Your task to perform on an android device: create a new album in the google photos Image 0: 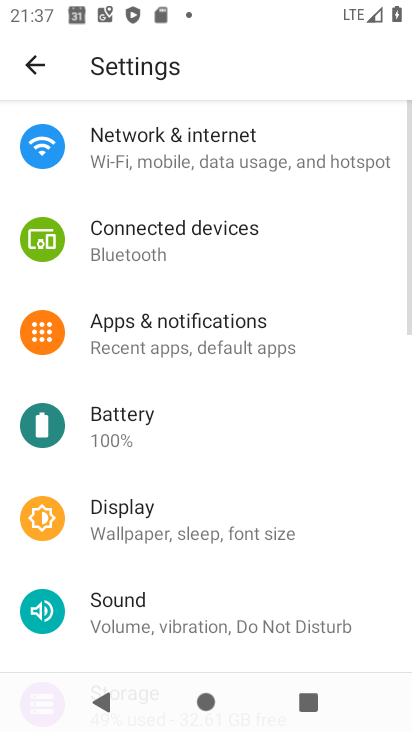
Step 0: press home button
Your task to perform on an android device: create a new album in the google photos Image 1: 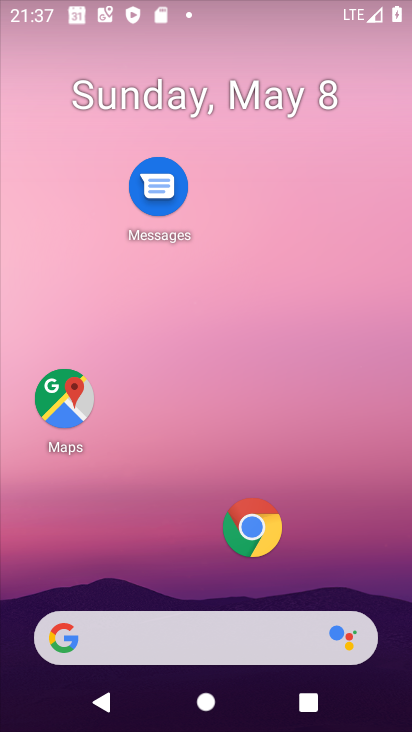
Step 1: drag from (172, 577) to (188, 53)
Your task to perform on an android device: create a new album in the google photos Image 2: 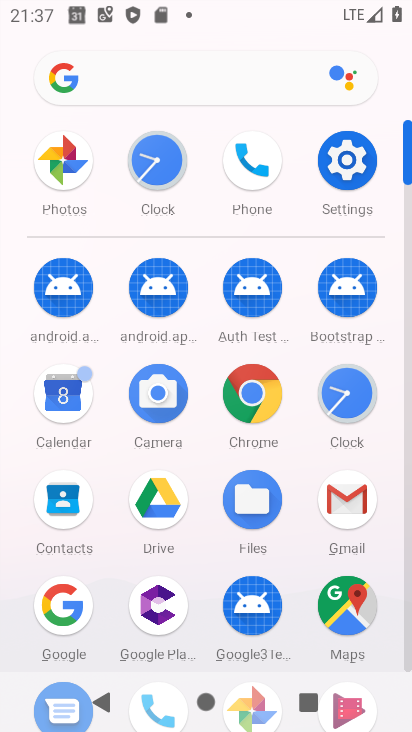
Step 2: drag from (245, 660) to (279, 306)
Your task to perform on an android device: create a new album in the google photos Image 3: 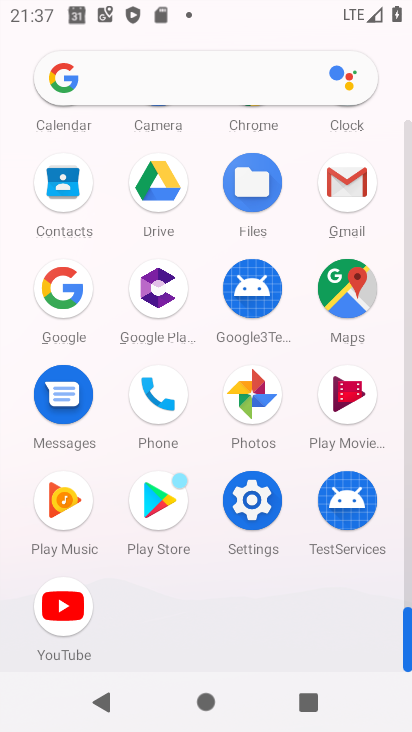
Step 3: click (254, 390)
Your task to perform on an android device: create a new album in the google photos Image 4: 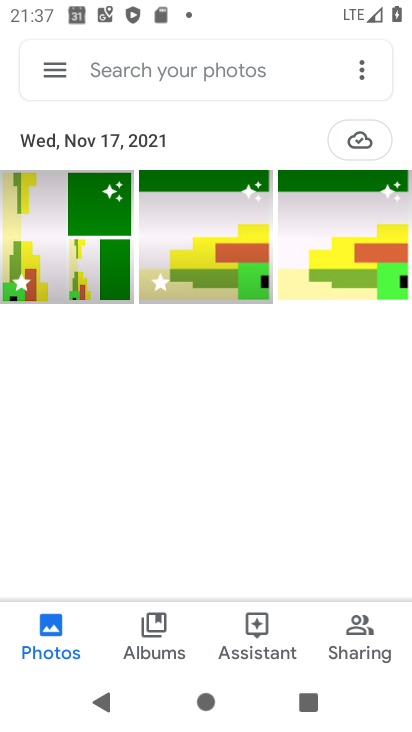
Step 4: click (146, 642)
Your task to perform on an android device: create a new album in the google photos Image 5: 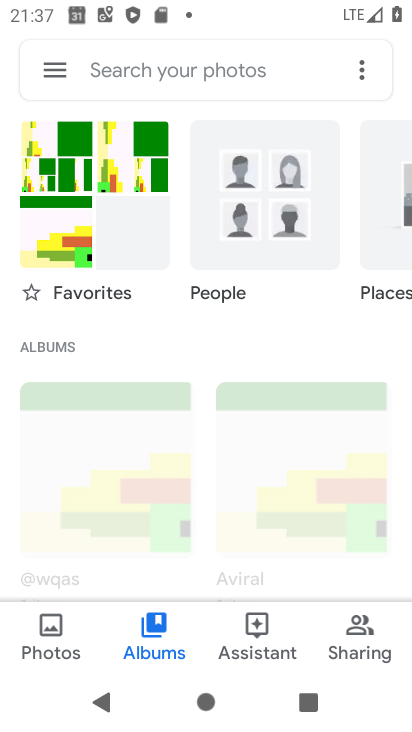
Step 5: drag from (202, 503) to (233, 28)
Your task to perform on an android device: create a new album in the google photos Image 6: 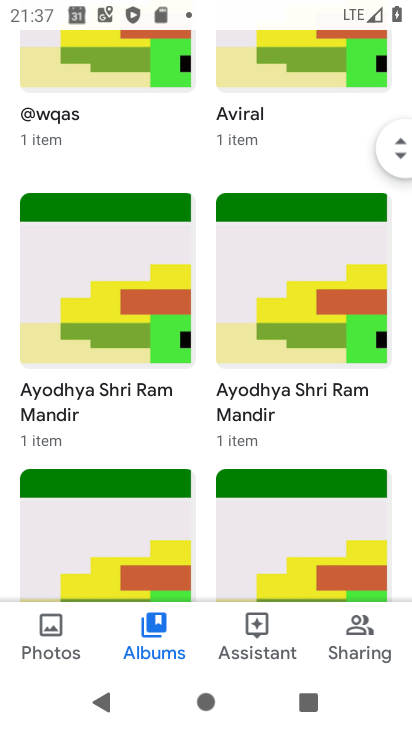
Step 6: drag from (203, 535) to (154, 691)
Your task to perform on an android device: create a new album in the google photos Image 7: 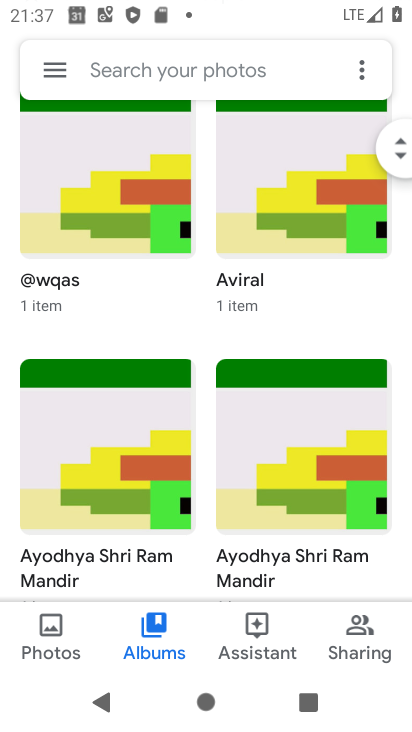
Step 7: drag from (135, 167) to (163, 633)
Your task to perform on an android device: create a new album in the google photos Image 8: 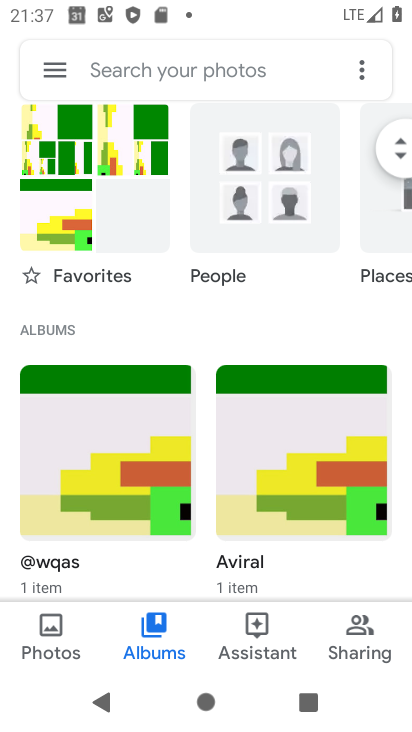
Step 8: drag from (168, 179) to (191, 535)
Your task to perform on an android device: create a new album in the google photos Image 9: 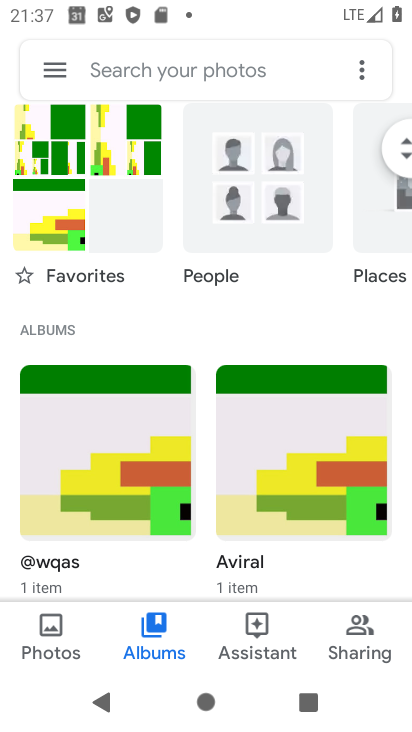
Step 9: drag from (286, 501) to (342, 2)
Your task to perform on an android device: create a new album in the google photos Image 10: 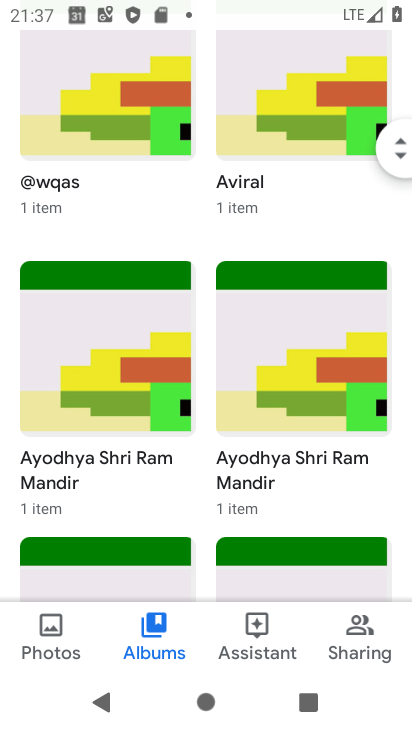
Step 10: drag from (211, 475) to (226, 1)
Your task to perform on an android device: create a new album in the google photos Image 11: 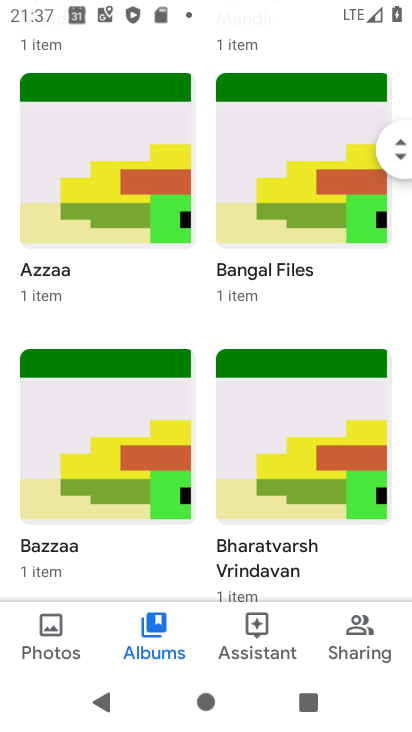
Step 11: drag from (212, 487) to (230, 114)
Your task to perform on an android device: create a new album in the google photos Image 12: 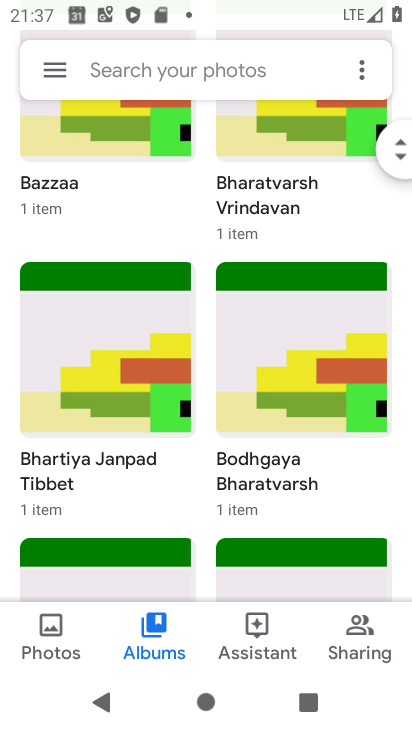
Step 12: drag from (163, 600) to (224, 196)
Your task to perform on an android device: create a new album in the google photos Image 13: 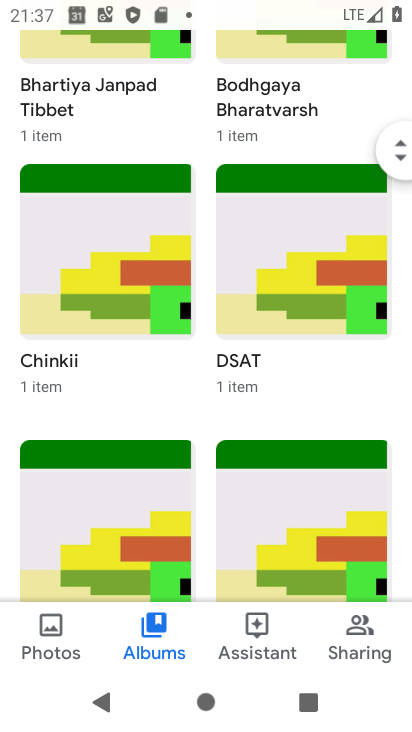
Step 13: drag from (394, 168) to (316, 0)
Your task to perform on an android device: create a new album in the google photos Image 14: 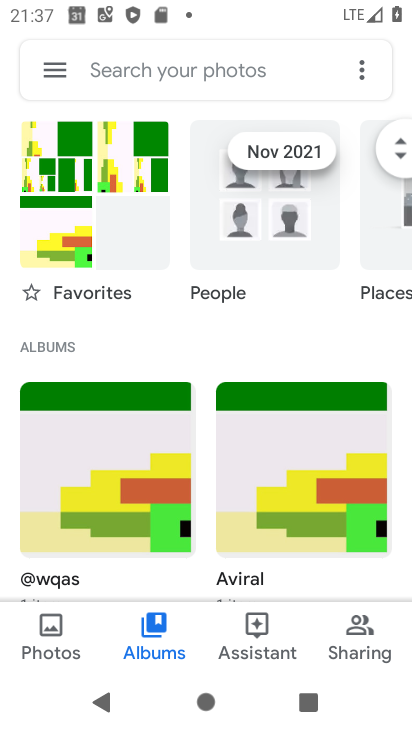
Step 14: click (52, 67)
Your task to perform on an android device: create a new album in the google photos Image 15: 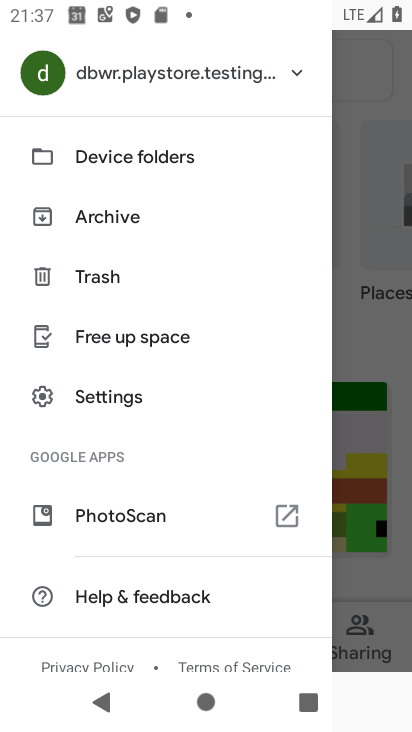
Step 15: click (356, 81)
Your task to perform on an android device: create a new album in the google photos Image 16: 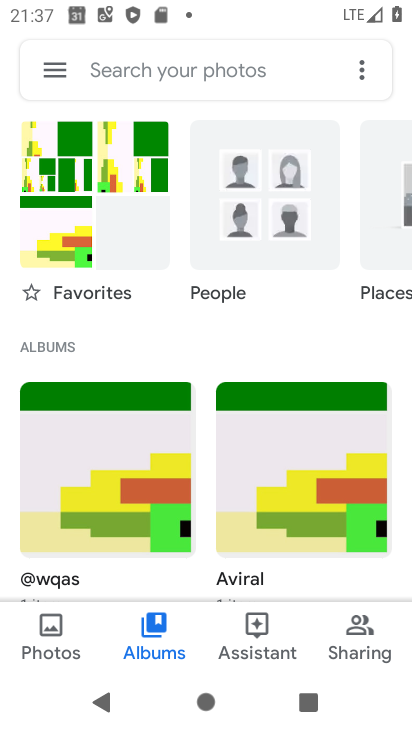
Step 16: click (144, 628)
Your task to perform on an android device: create a new album in the google photos Image 17: 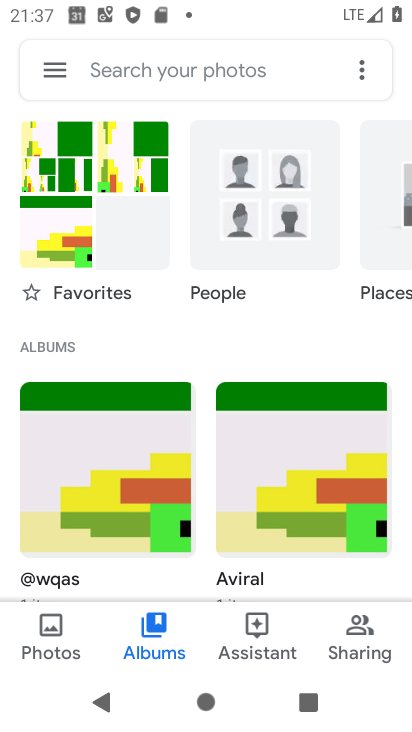
Step 17: drag from (314, 343) to (0, 350)
Your task to perform on an android device: create a new album in the google photos Image 18: 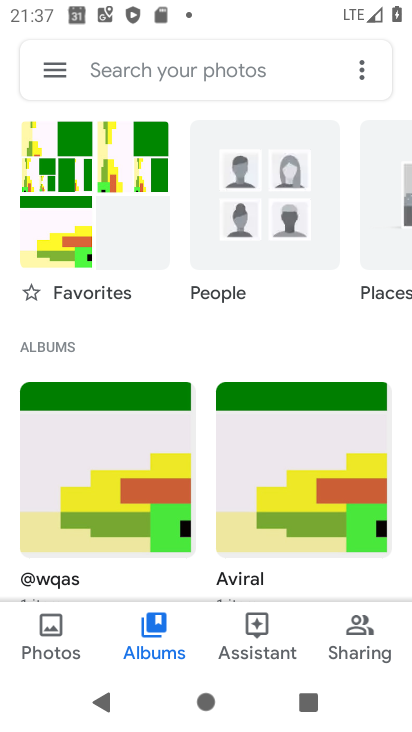
Step 18: click (68, 348)
Your task to perform on an android device: create a new album in the google photos Image 19: 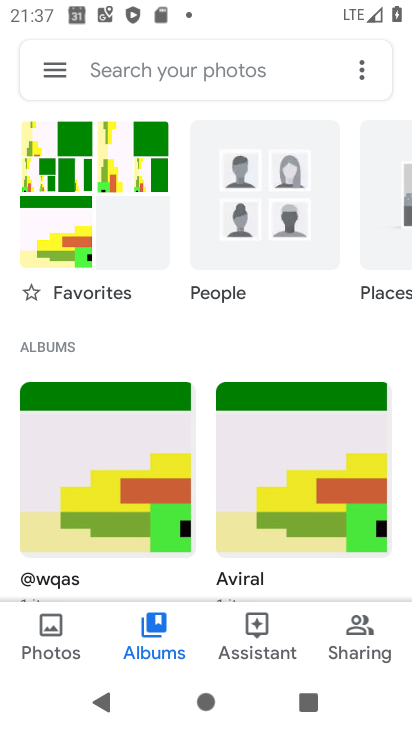
Step 19: click (356, 76)
Your task to perform on an android device: create a new album in the google photos Image 20: 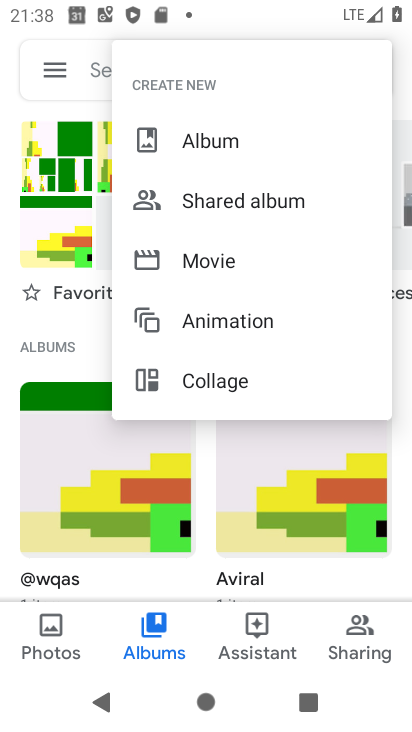
Step 20: click (207, 144)
Your task to perform on an android device: create a new album in the google photos Image 21: 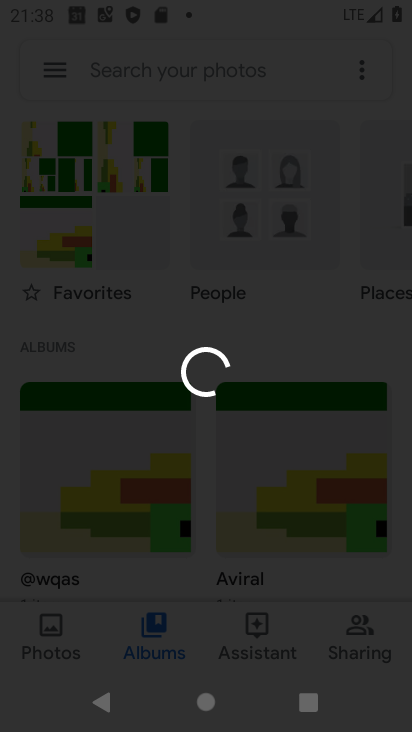
Step 21: task complete